Your task to perform on an android device: Open network settings Image 0: 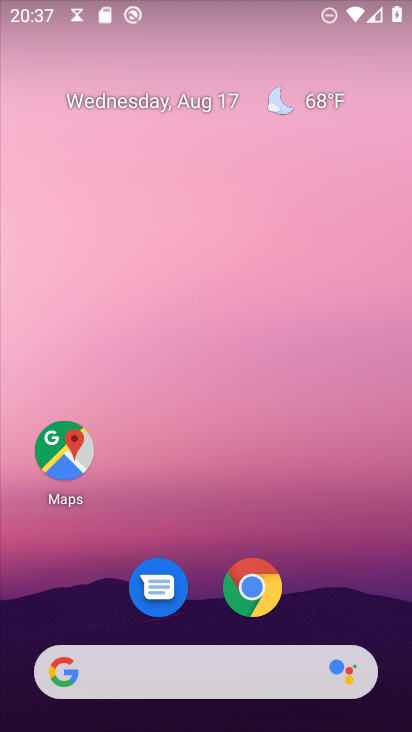
Step 0: drag from (15, 679) to (264, 222)
Your task to perform on an android device: Open network settings Image 1: 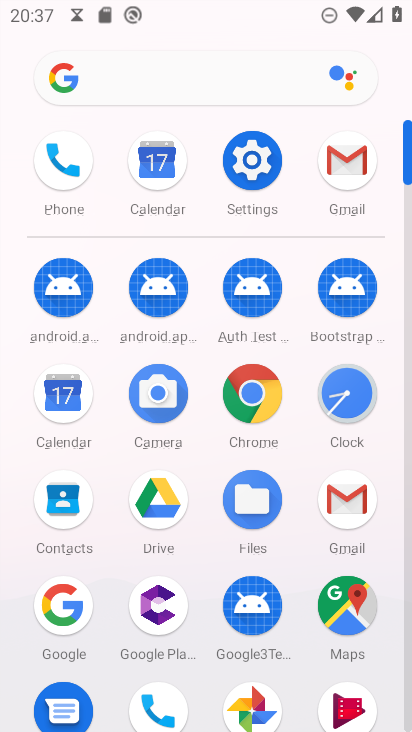
Step 1: click (241, 148)
Your task to perform on an android device: Open network settings Image 2: 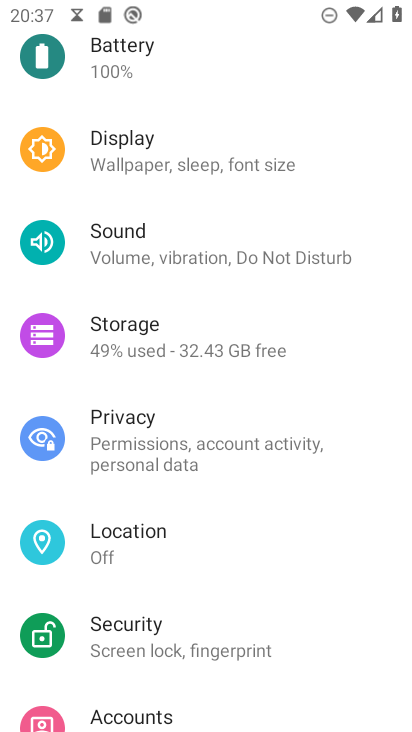
Step 2: drag from (277, 82) to (206, 626)
Your task to perform on an android device: Open network settings Image 3: 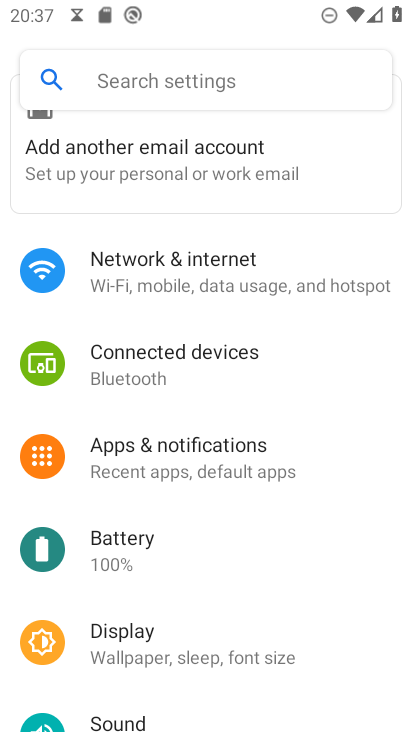
Step 3: click (176, 266)
Your task to perform on an android device: Open network settings Image 4: 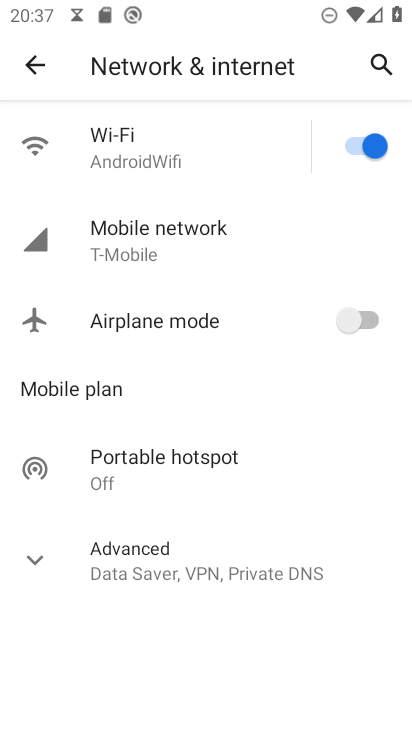
Step 4: task complete